Your task to perform on an android device: Go to Google maps Image 0: 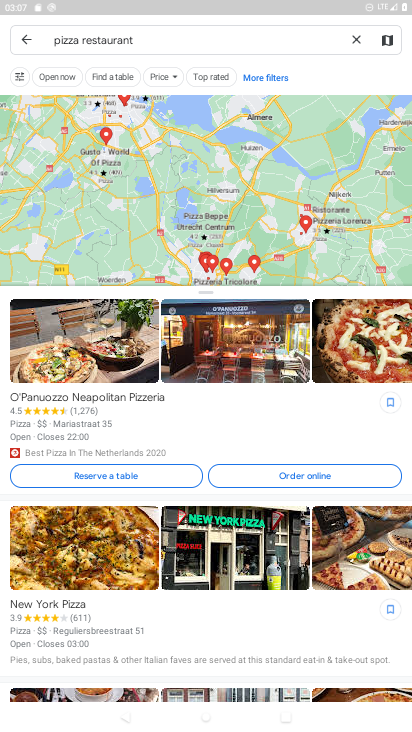
Step 0: press home button
Your task to perform on an android device: Go to Google maps Image 1: 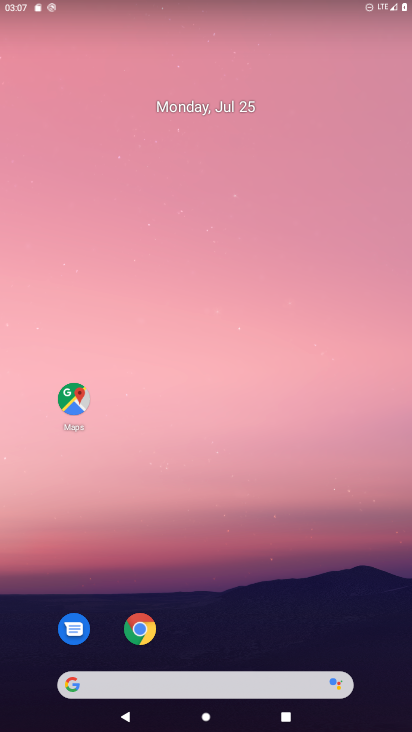
Step 1: drag from (284, 525) to (309, 47)
Your task to perform on an android device: Go to Google maps Image 2: 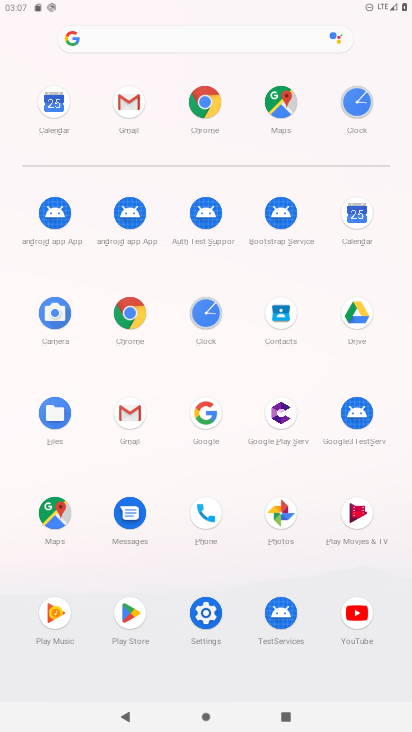
Step 2: click (204, 420)
Your task to perform on an android device: Go to Google maps Image 3: 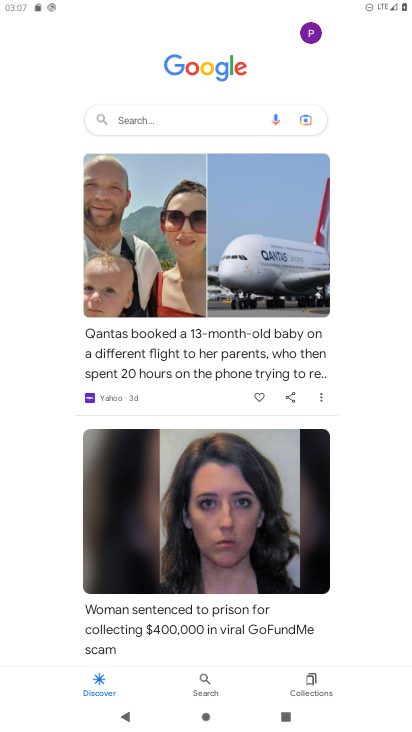
Step 3: task complete